Your task to perform on an android device: Do I have any events today? Image 0: 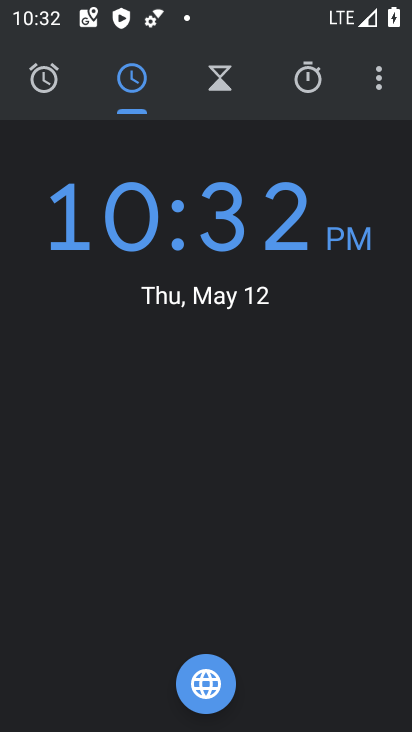
Step 0: press home button
Your task to perform on an android device: Do I have any events today? Image 1: 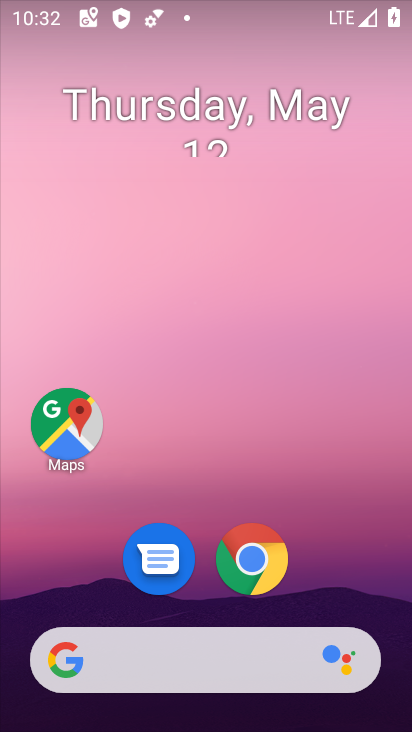
Step 1: drag from (202, 592) to (192, 218)
Your task to perform on an android device: Do I have any events today? Image 2: 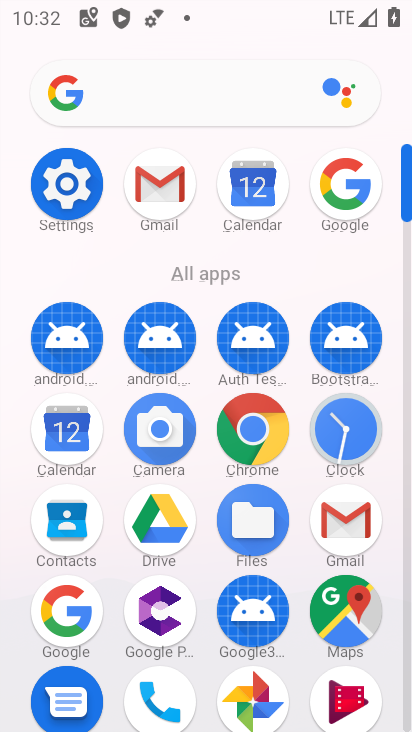
Step 2: click (52, 442)
Your task to perform on an android device: Do I have any events today? Image 3: 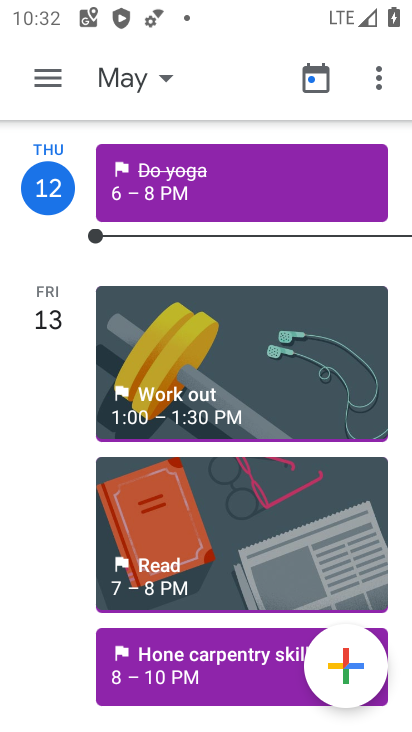
Step 3: drag from (205, 596) to (199, 330)
Your task to perform on an android device: Do I have any events today? Image 4: 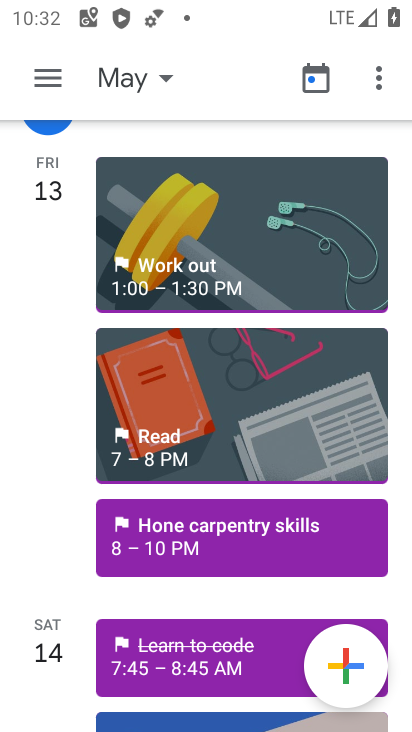
Step 4: click (148, 83)
Your task to perform on an android device: Do I have any events today? Image 5: 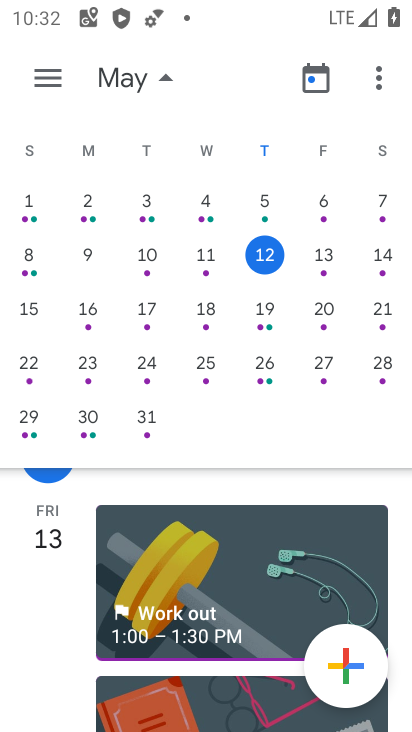
Step 5: click (257, 258)
Your task to perform on an android device: Do I have any events today? Image 6: 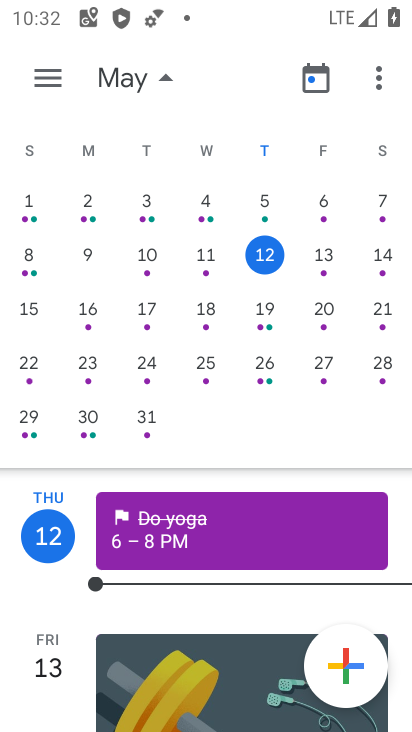
Step 6: task complete